Your task to perform on an android device: toggle improve location accuracy Image 0: 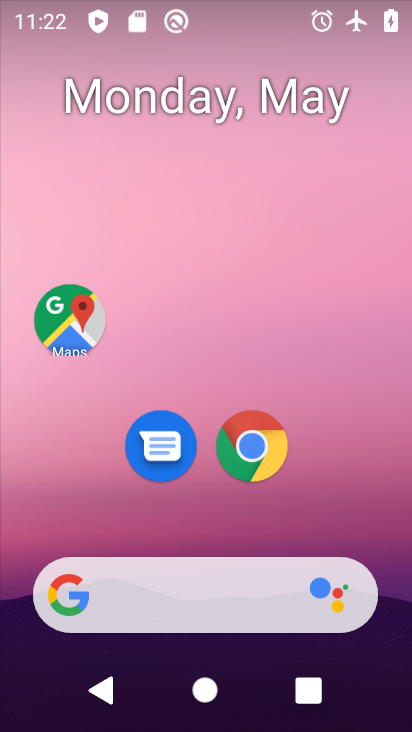
Step 0: drag from (322, 458) to (83, 157)
Your task to perform on an android device: toggle improve location accuracy Image 1: 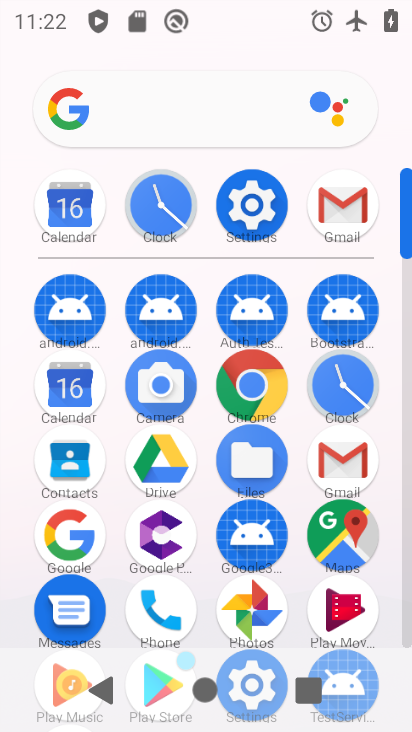
Step 1: click (251, 209)
Your task to perform on an android device: toggle improve location accuracy Image 2: 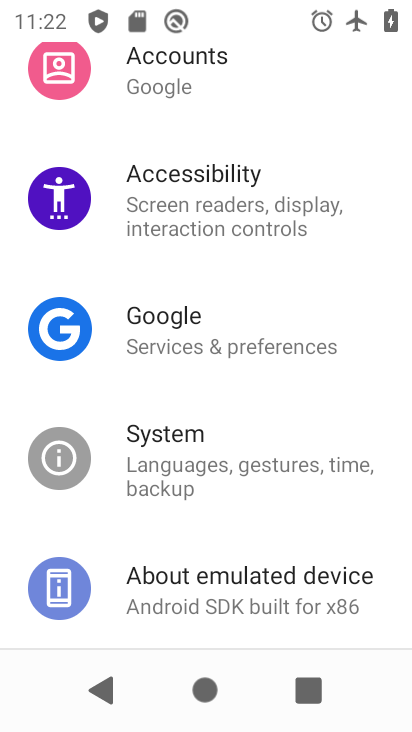
Step 2: drag from (222, 145) to (224, 565)
Your task to perform on an android device: toggle improve location accuracy Image 3: 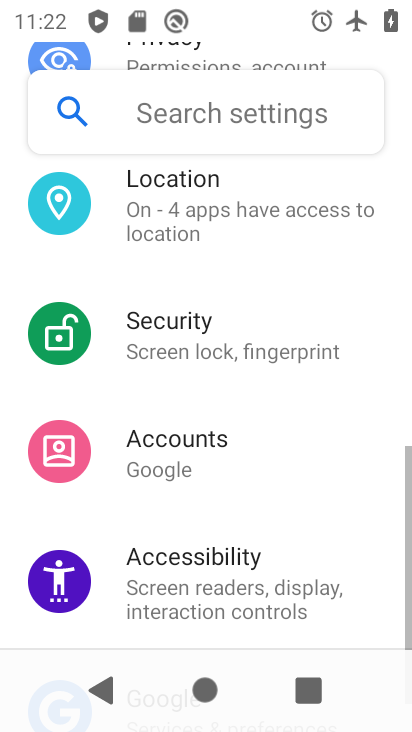
Step 3: drag from (189, 279) to (209, 524)
Your task to perform on an android device: toggle improve location accuracy Image 4: 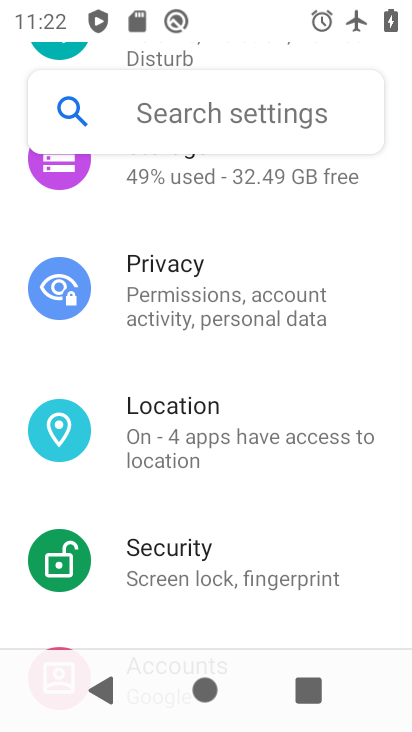
Step 4: click (166, 435)
Your task to perform on an android device: toggle improve location accuracy Image 5: 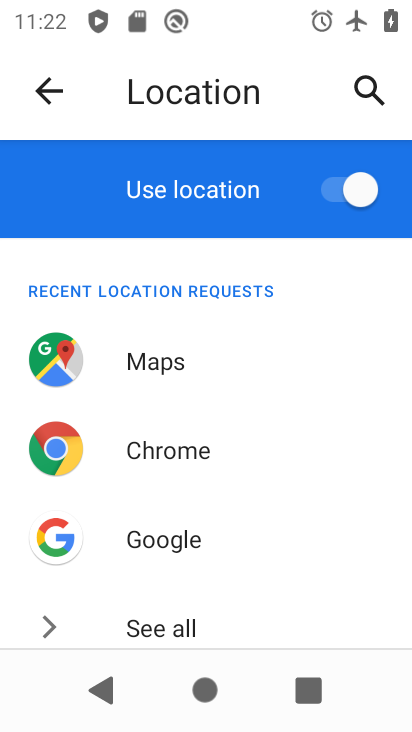
Step 5: drag from (141, 588) to (102, 353)
Your task to perform on an android device: toggle improve location accuracy Image 6: 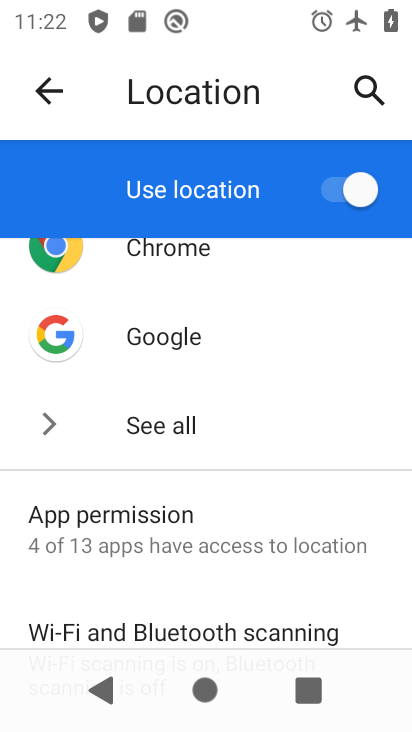
Step 6: drag from (148, 573) to (197, 257)
Your task to perform on an android device: toggle improve location accuracy Image 7: 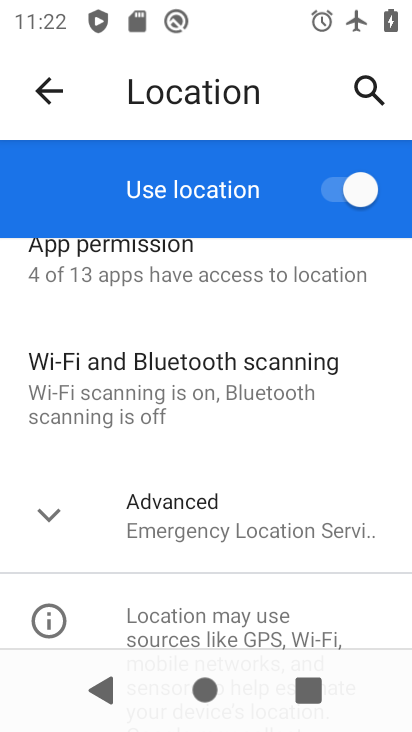
Step 7: click (165, 527)
Your task to perform on an android device: toggle improve location accuracy Image 8: 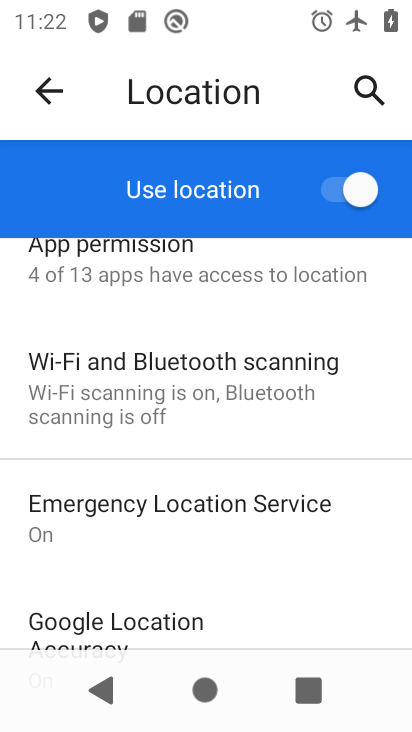
Step 8: click (146, 616)
Your task to perform on an android device: toggle improve location accuracy Image 9: 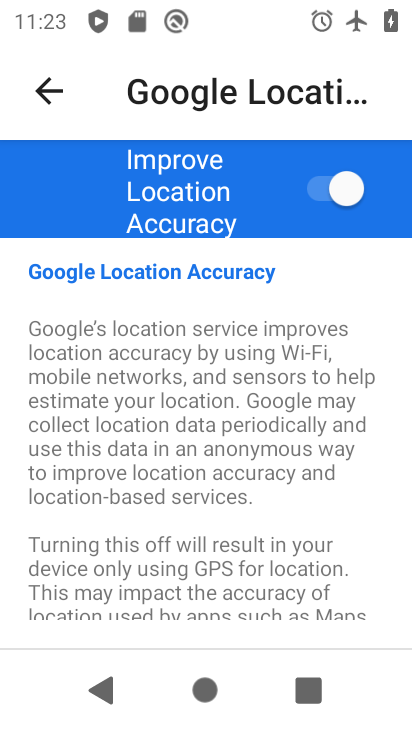
Step 9: click (317, 190)
Your task to perform on an android device: toggle improve location accuracy Image 10: 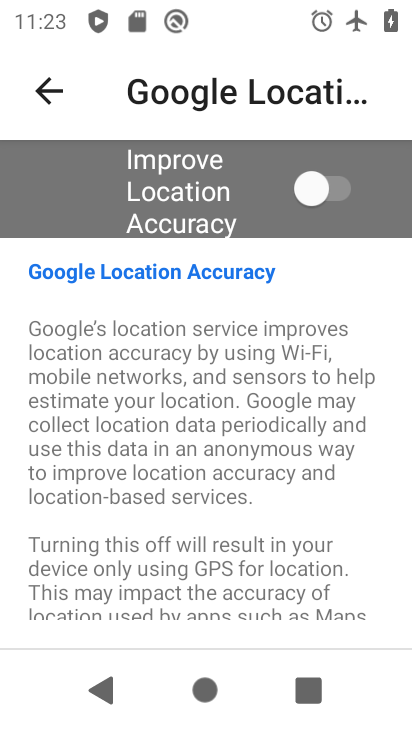
Step 10: task complete